Your task to perform on an android device: toggle airplane mode Image 0: 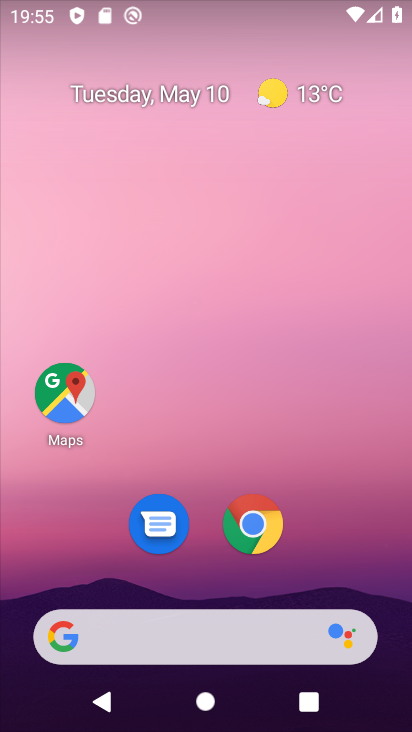
Step 0: drag from (341, 532) to (255, 24)
Your task to perform on an android device: toggle airplane mode Image 1: 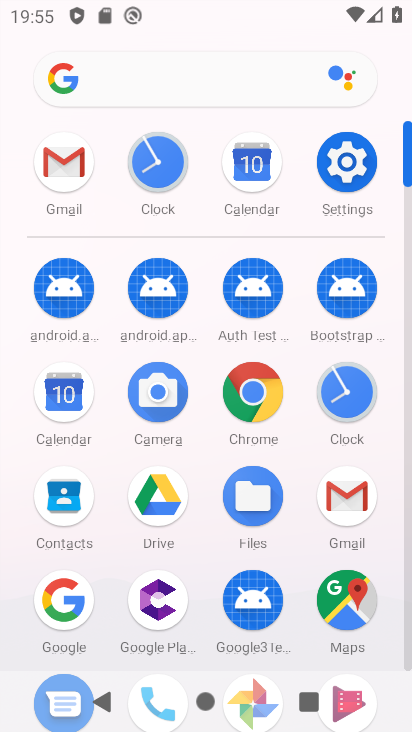
Step 1: click (349, 165)
Your task to perform on an android device: toggle airplane mode Image 2: 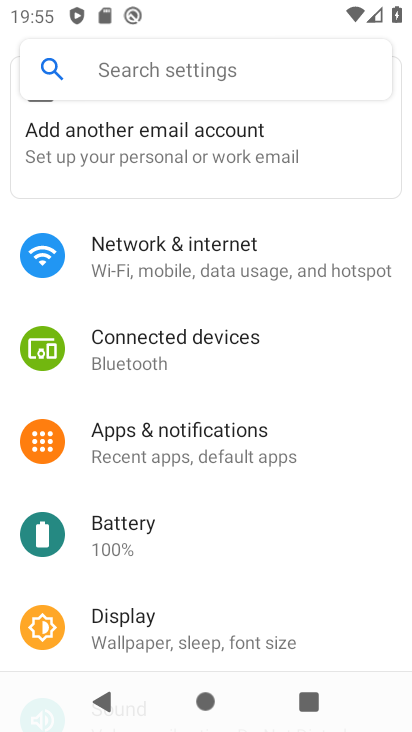
Step 2: click (245, 253)
Your task to perform on an android device: toggle airplane mode Image 3: 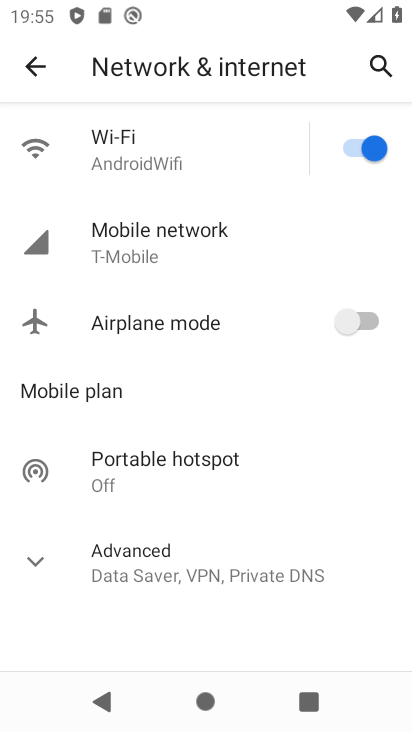
Step 3: click (357, 318)
Your task to perform on an android device: toggle airplane mode Image 4: 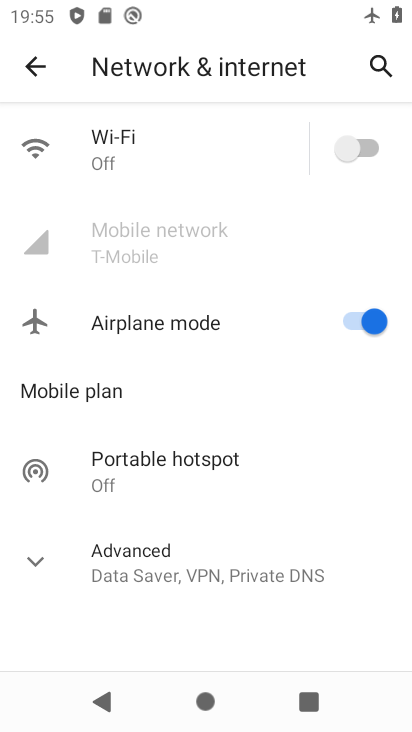
Step 4: task complete